Your task to perform on an android device: Go to network settings Image 0: 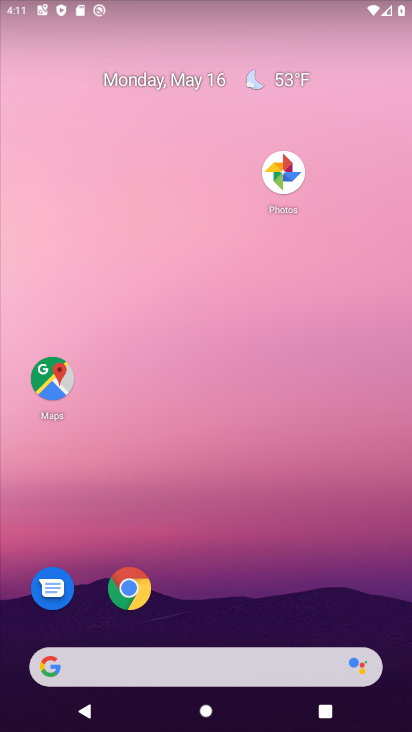
Step 0: drag from (170, 604) to (263, 4)
Your task to perform on an android device: Go to network settings Image 1: 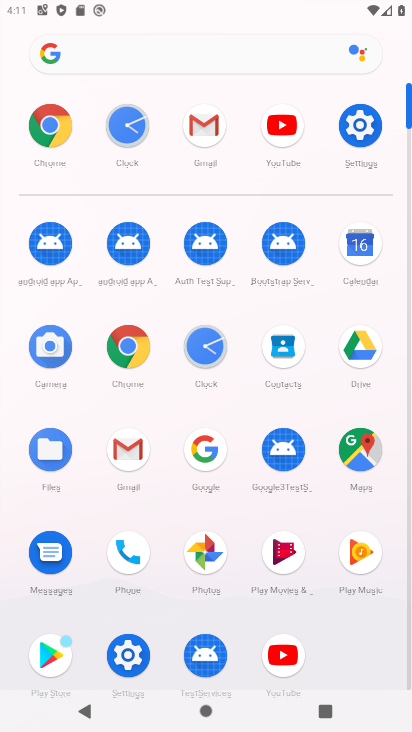
Step 1: click (357, 162)
Your task to perform on an android device: Go to network settings Image 2: 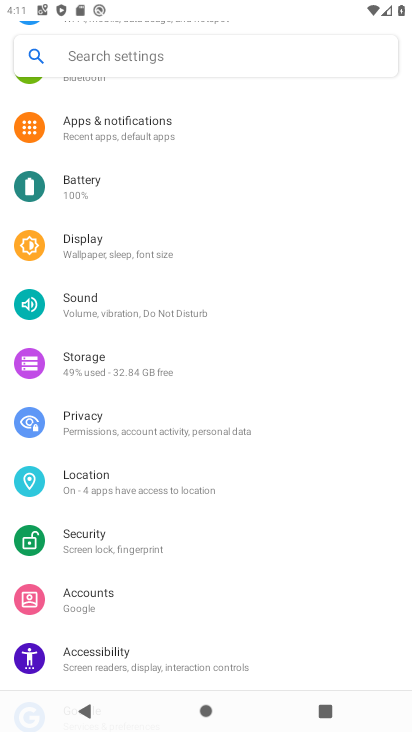
Step 2: drag from (178, 129) to (212, 638)
Your task to perform on an android device: Go to network settings Image 3: 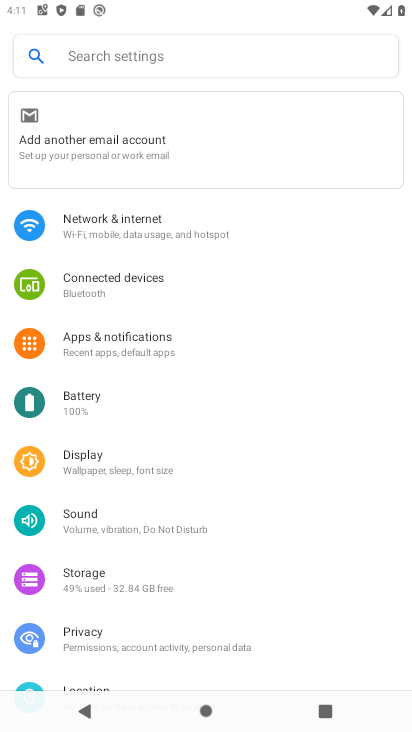
Step 3: click (197, 224)
Your task to perform on an android device: Go to network settings Image 4: 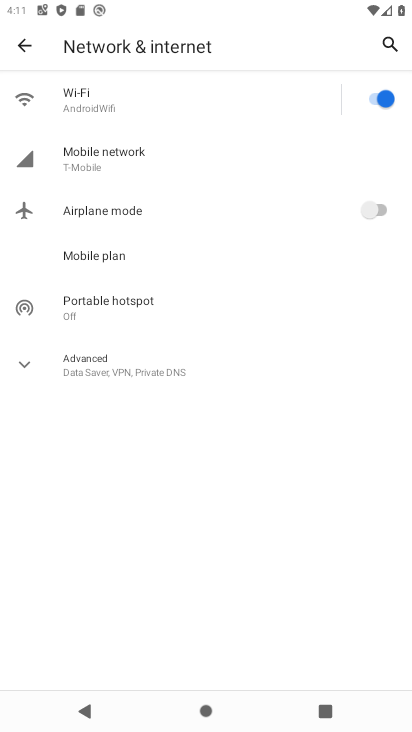
Step 4: click (185, 165)
Your task to perform on an android device: Go to network settings Image 5: 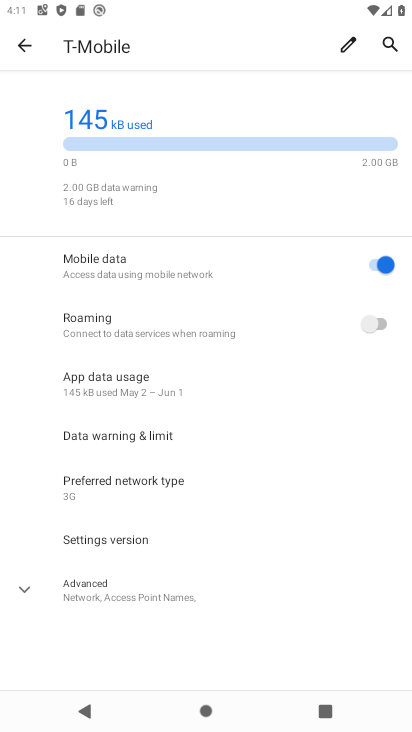
Step 5: task complete